Your task to perform on an android device: open wifi settings Image 0: 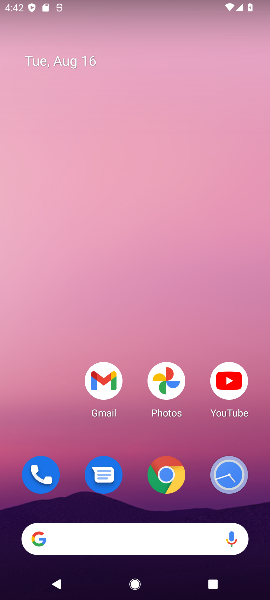
Step 0: drag from (250, 502) to (177, 28)
Your task to perform on an android device: open wifi settings Image 1: 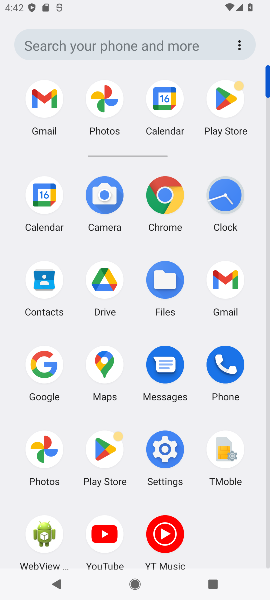
Step 1: click (158, 455)
Your task to perform on an android device: open wifi settings Image 2: 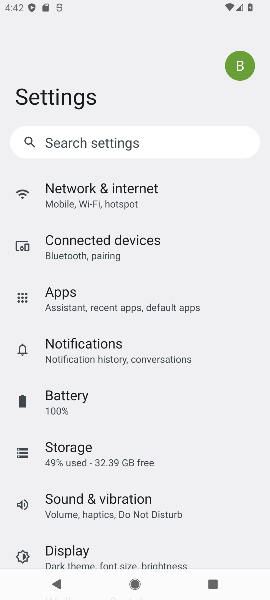
Step 2: click (105, 207)
Your task to perform on an android device: open wifi settings Image 3: 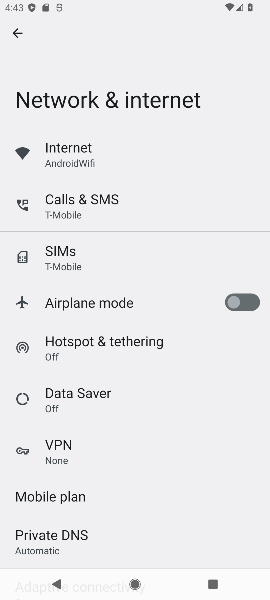
Step 3: task complete